Your task to perform on an android device: turn on data saver in the chrome app Image 0: 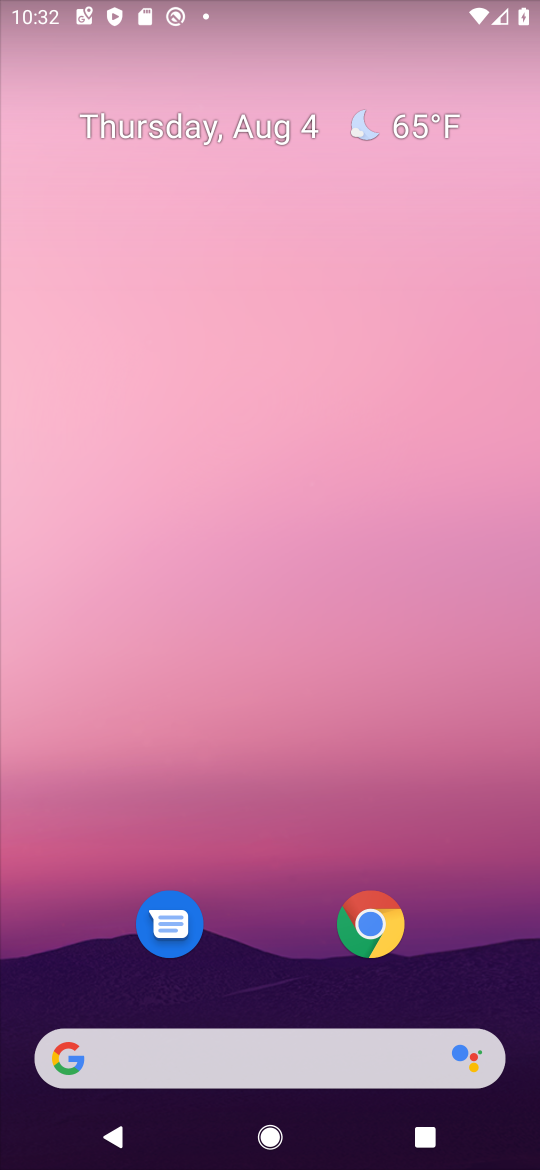
Step 0: click (371, 932)
Your task to perform on an android device: turn on data saver in the chrome app Image 1: 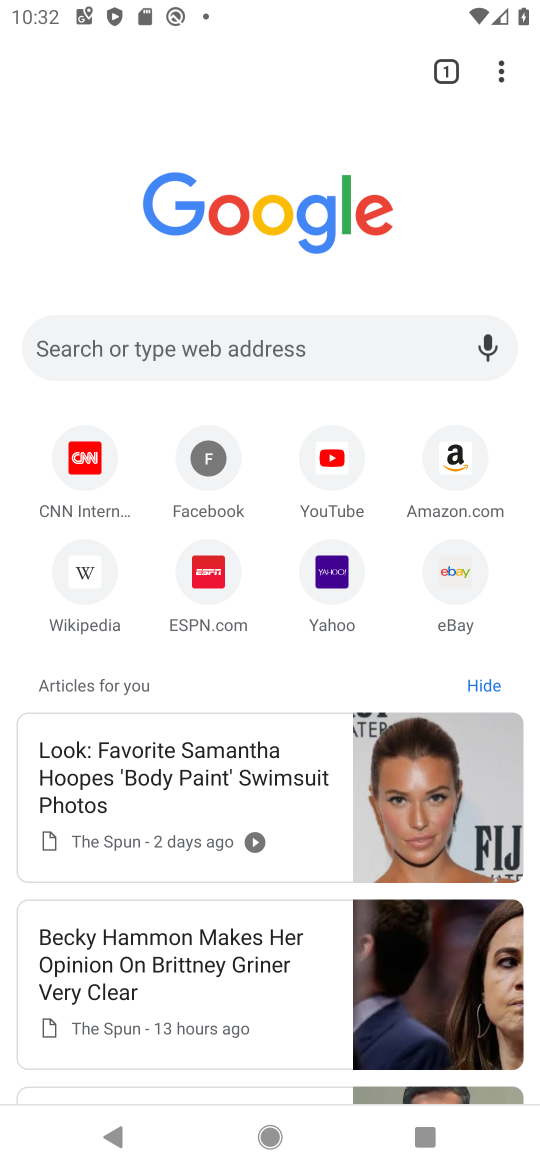
Step 1: click (508, 69)
Your task to perform on an android device: turn on data saver in the chrome app Image 2: 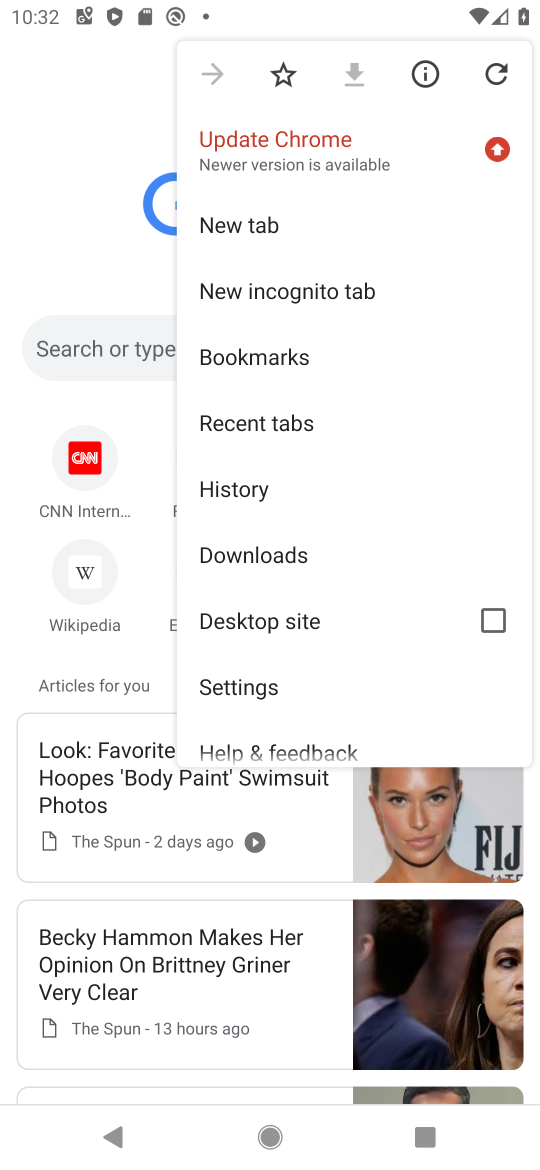
Step 2: click (265, 494)
Your task to perform on an android device: turn on data saver in the chrome app Image 3: 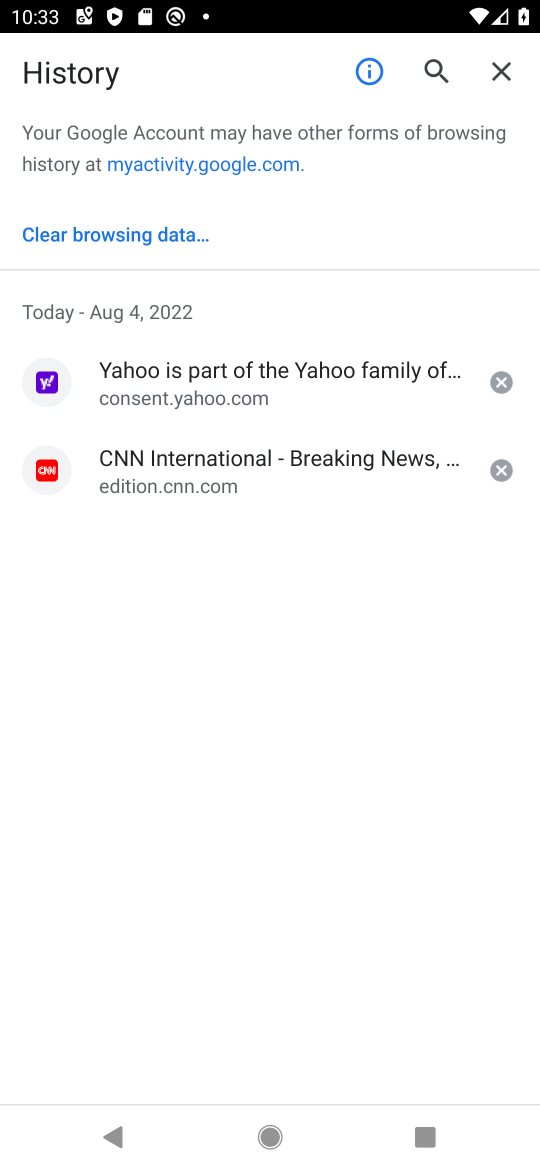
Step 3: press home button
Your task to perform on an android device: turn on data saver in the chrome app Image 4: 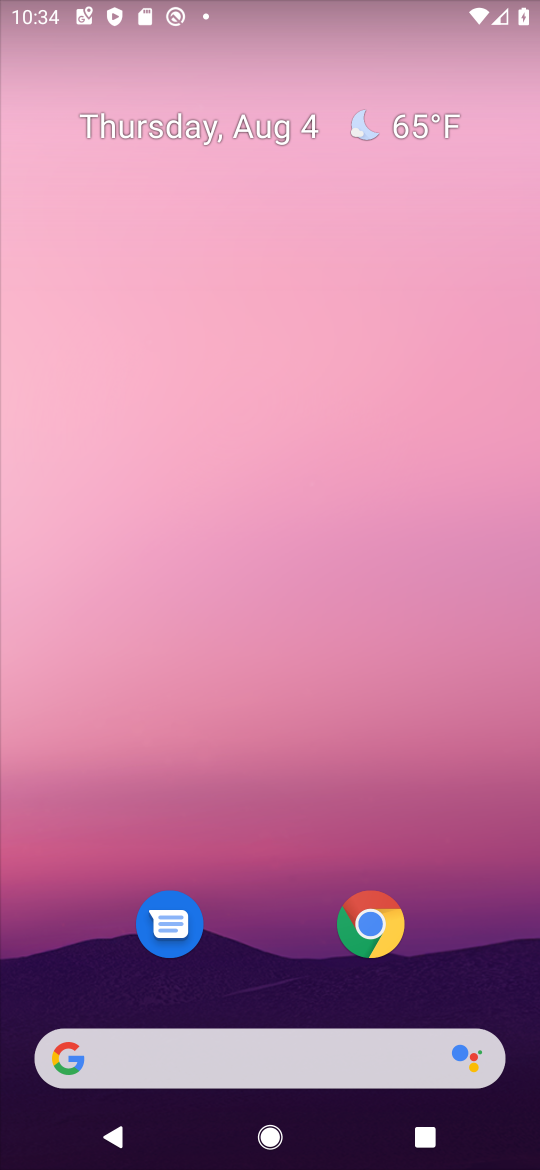
Step 4: click (384, 917)
Your task to perform on an android device: turn on data saver in the chrome app Image 5: 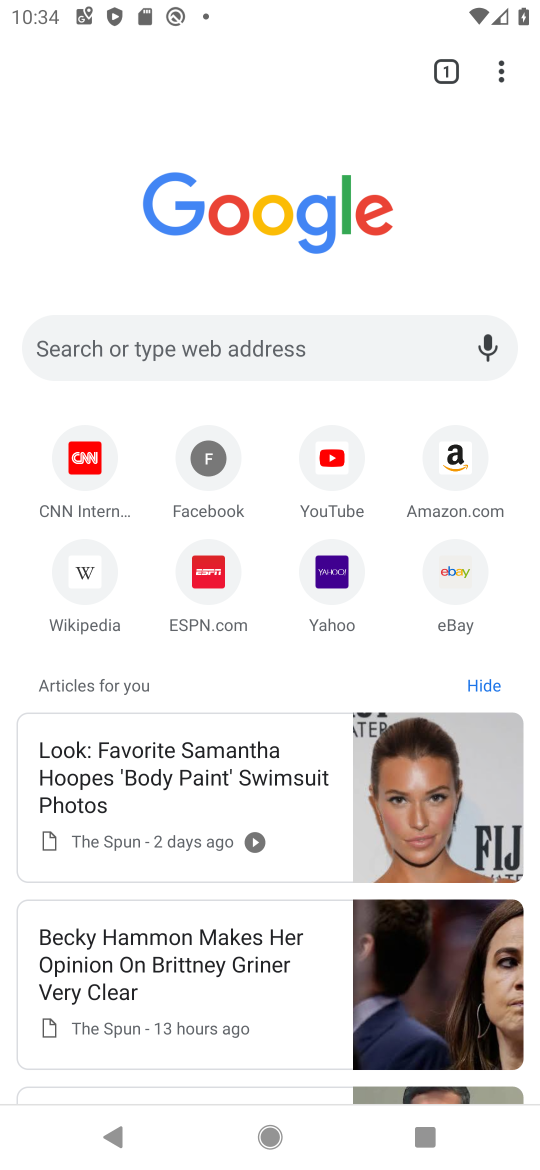
Step 5: task complete